Your task to perform on an android device: Search for Mexican restaurants on Maps Image 0: 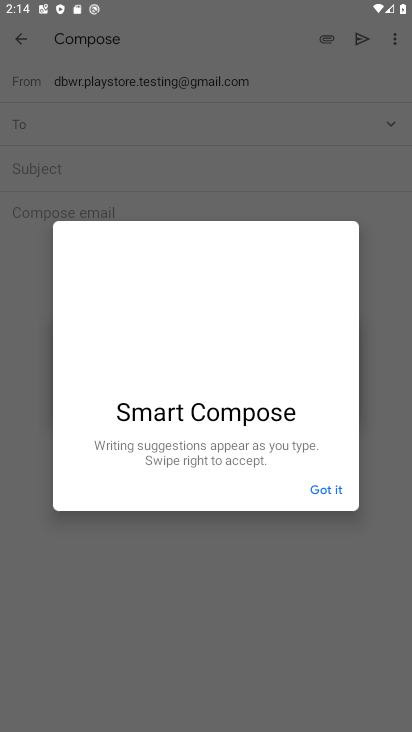
Step 0: press home button
Your task to perform on an android device: Search for Mexican restaurants on Maps Image 1: 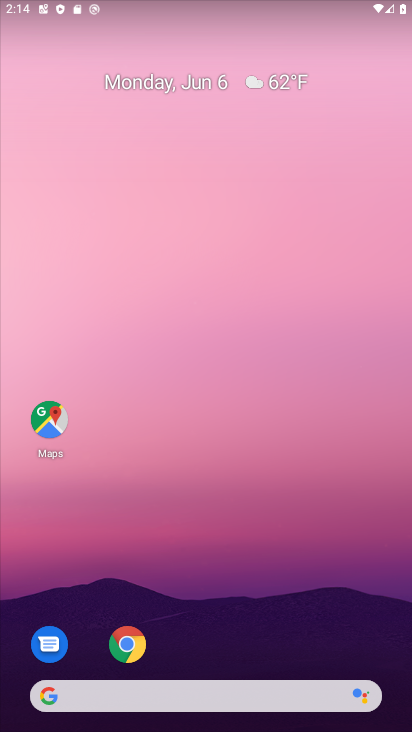
Step 1: click (56, 423)
Your task to perform on an android device: Search for Mexican restaurants on Maps Image 2: 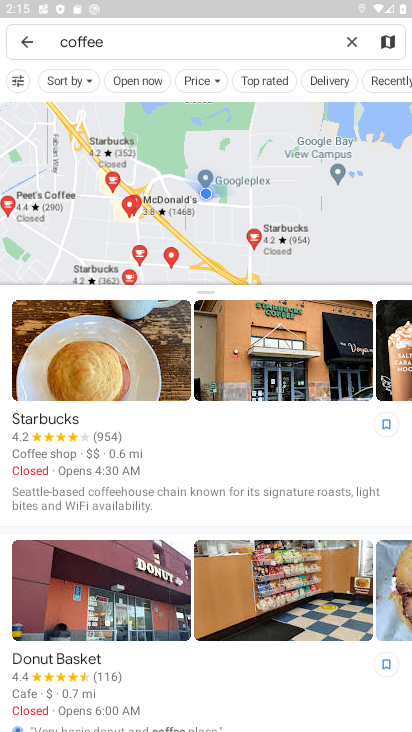
Step 2: click (343, 38)
Your task to perform on an android device: Search for Mexican restaurants on Maps Image 3: 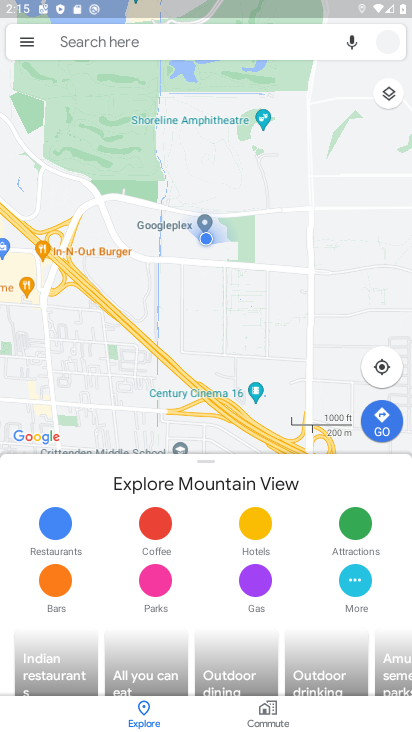
Step 3: click (191, 43)
Your task to perform on an android device: Search for Mexican restaurants on Maps Image 4: 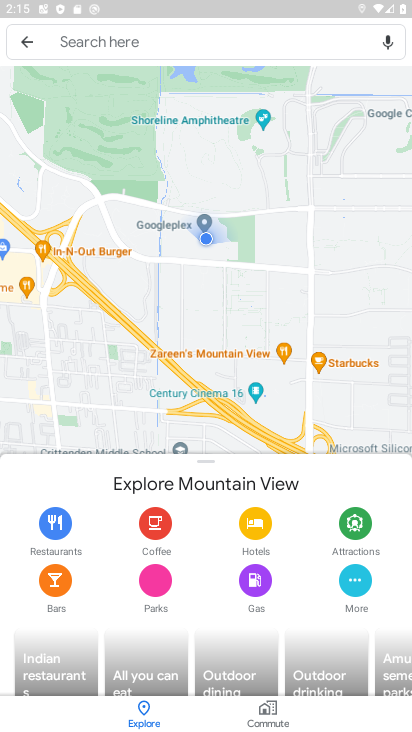
Step 4: click (178, 50)
Your task to perform on an android device: Search for Mexican restaurants on Maps Image 5: 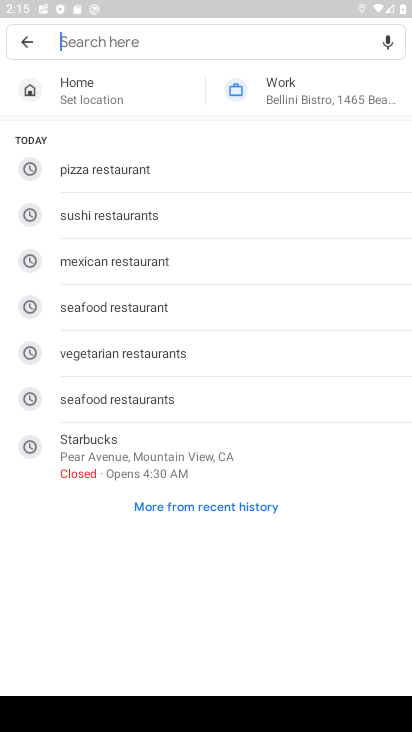
Step 5: click (150, 259)
Your task to perform on an android device: Search for Mexican restaurants on Maps Image 6: 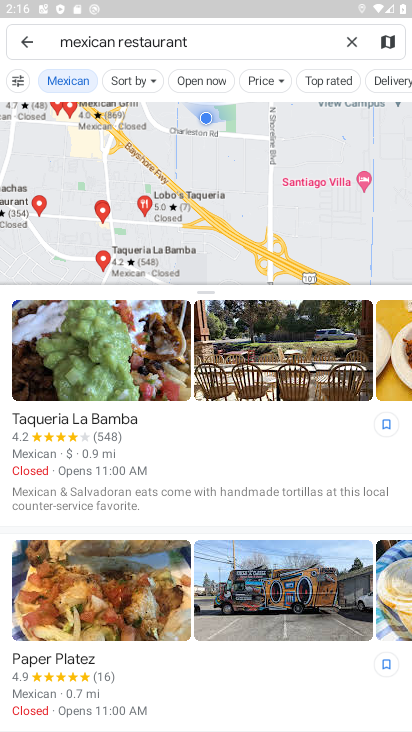
Step 6: task complete